Your task to perform on an android device: Empty the shopping cart on target.com. Search for logitech g502 on target.com, select the first entry, and add it to the cart. Image 0: 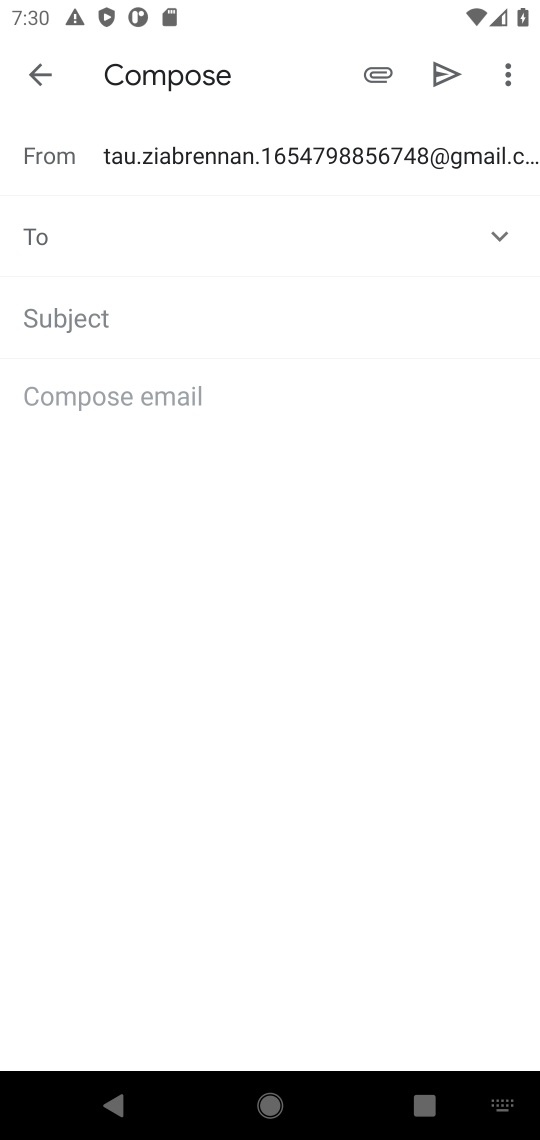
Step 0: press home button
Your task to perform on an android device: Empty the shopping cart on target.com. Search for logitech g502 on target.com, select the first entry, and add it to the cart. Image 1: 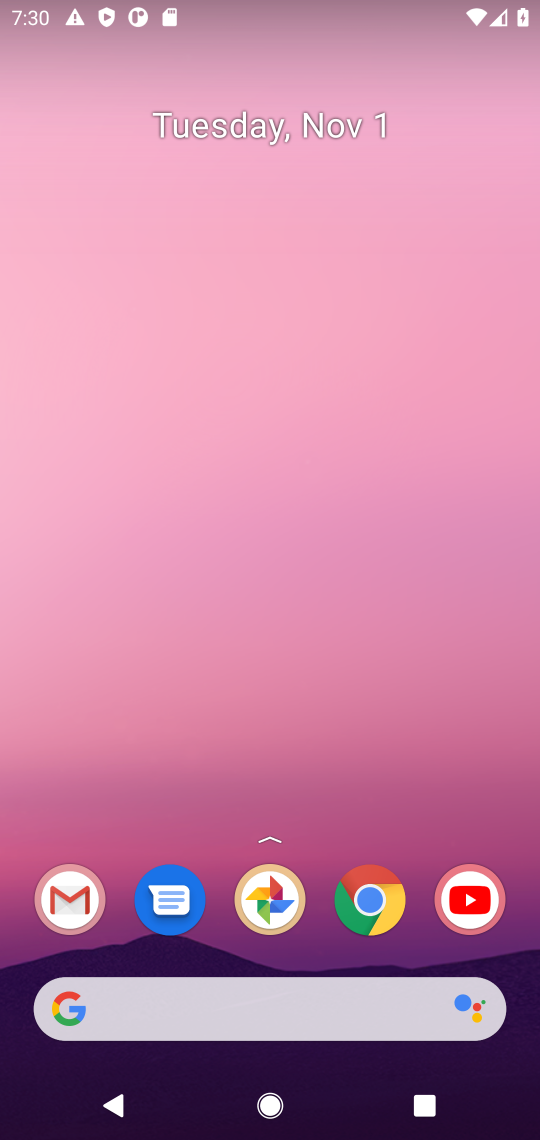
Step 1: drag from (319, 952) to (386, 218)
Your task to perform on an android device: Empty the shopping cart on target.com. Search for logitech g502 on target.com, select the first entry, and add it to the cart. Image 2: 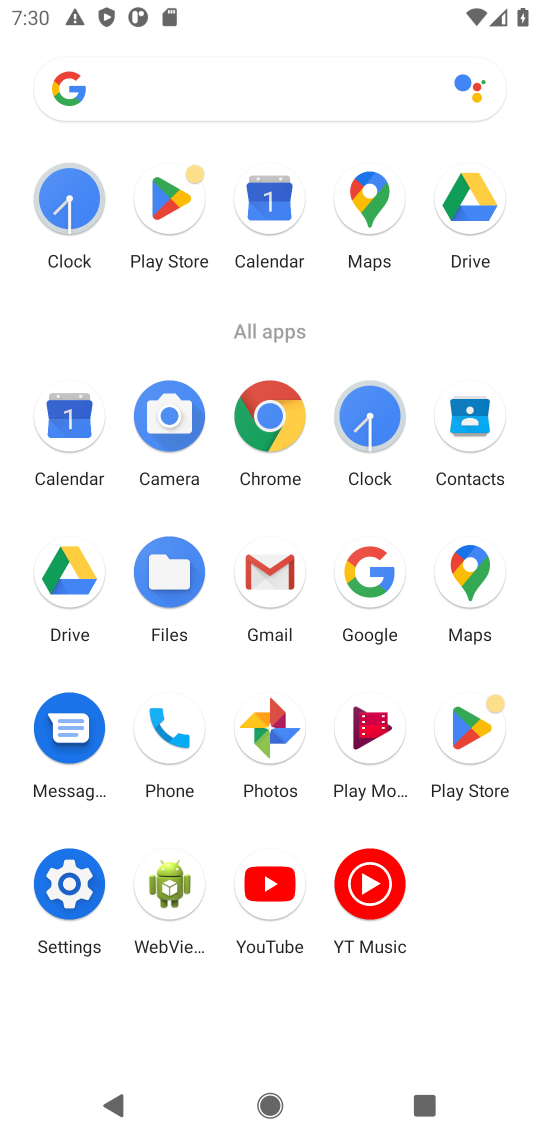
Step 2: click (266, 420)
Your task to perform on an android device: Empty the shopping cart on target.com. Search for logitech g502 on target.com, select the first entry, and add it to the cart. Image 3: 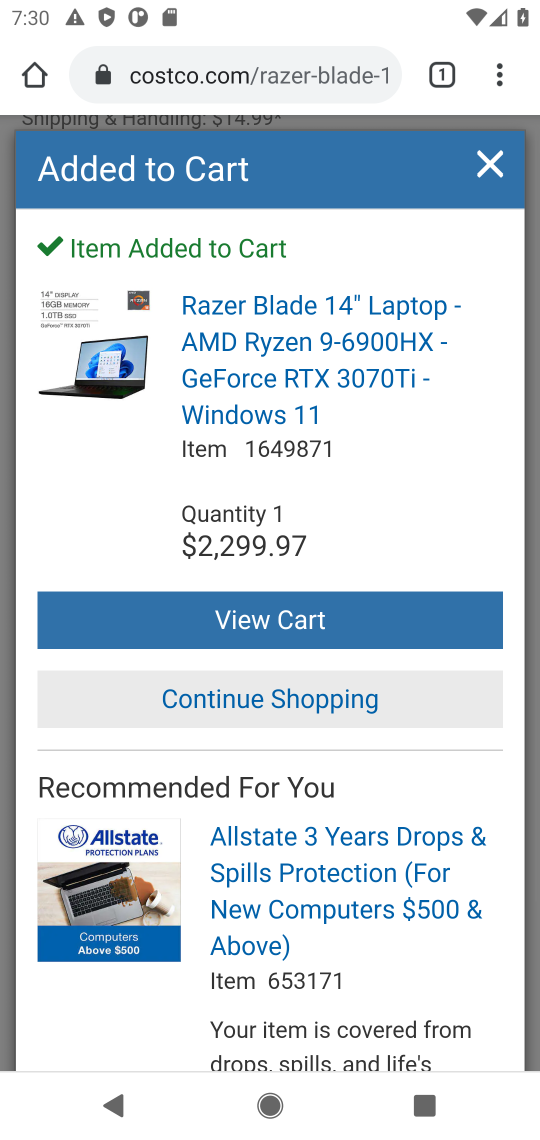
Step 3: click (279, 80)
Your task to perform on an android device: Empty the shopping cart on target.com. Search for logitech g502 on target.com, select the first entry, and add it to the cart. Image 4: 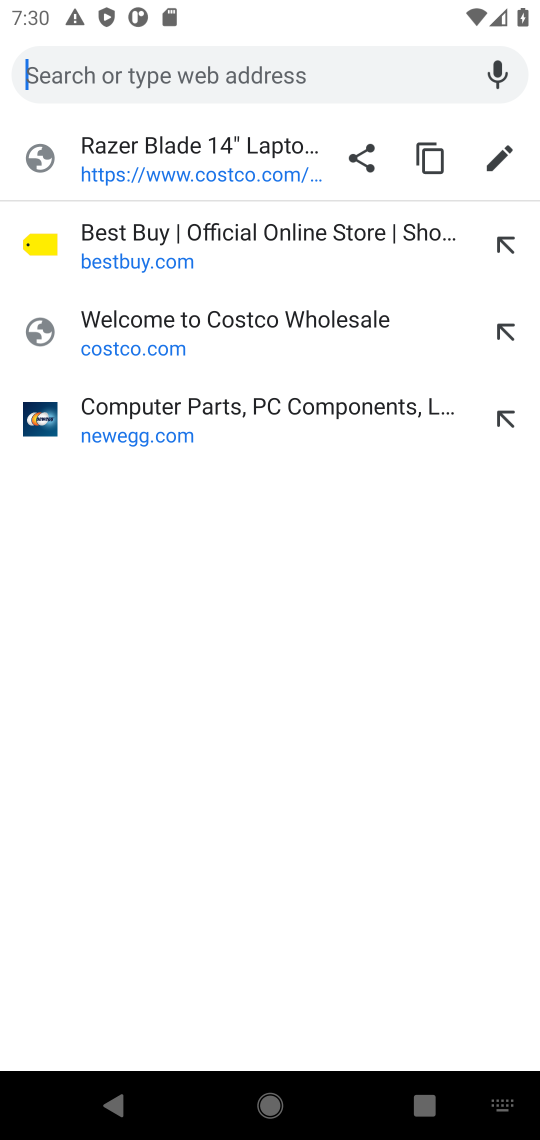
Step 4: type "target.com"
Your task to perform on an android device: Empty the shopping cart on target.com. Search for logitech g502 on target.com, select the first entry, and add it to the cart. Image 5: 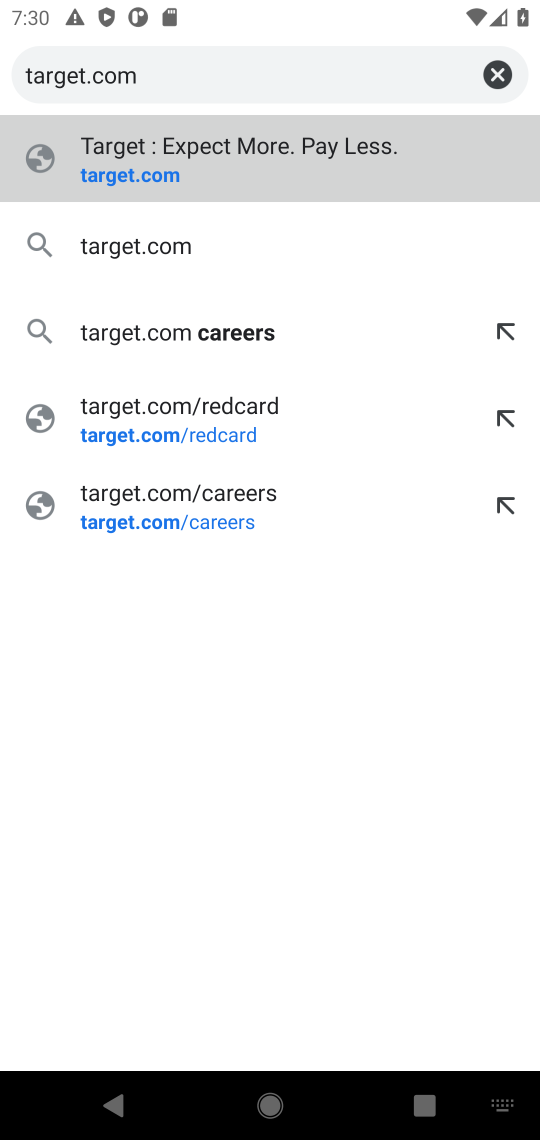
Step 5: press enter
Your task to perform on an android device: Empty the shopping cart on target.com. Search for logitech g502 on target.com, select the first entry, and add it to the cart. Image 6: 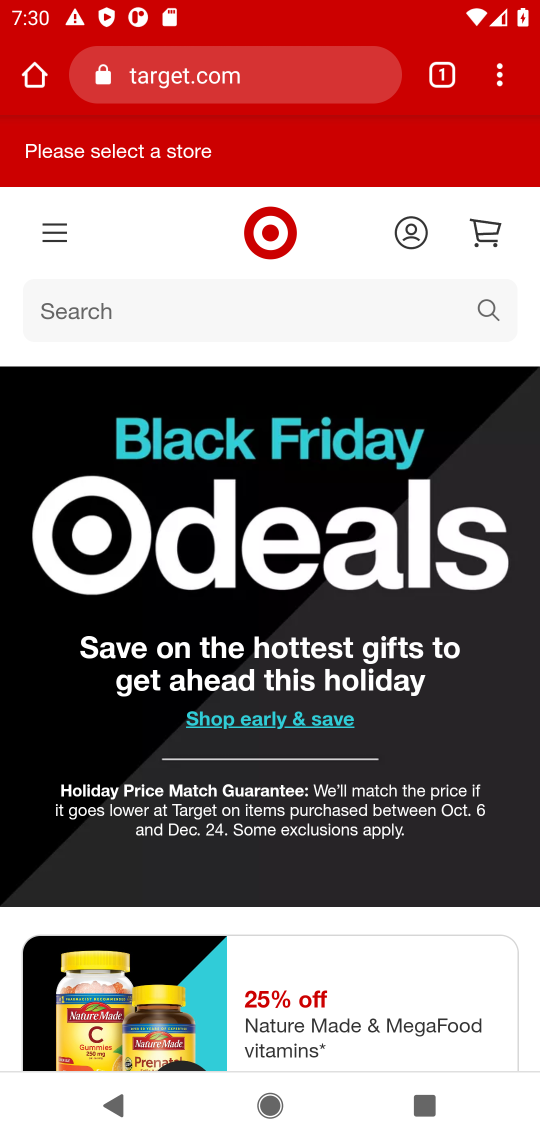
Step 6: click (263, 309)
Your task to perform on an android device: Empty the shopping cart on target.com. Search for logitech g502 on target.com, select the first entry, and add it to the cart. Image 7: 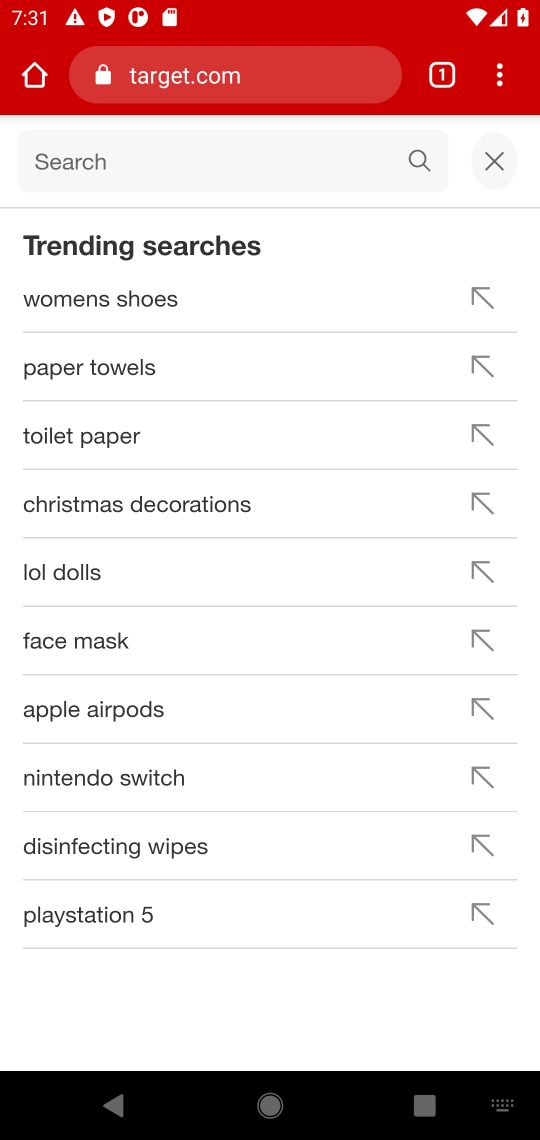
Step 7: click (488, 154)
Your task to perform on an android device: Empty the shopping cart on target.com. Search for logitech g502 on target.com, select the first entry, and add it to the cart. Image 8: 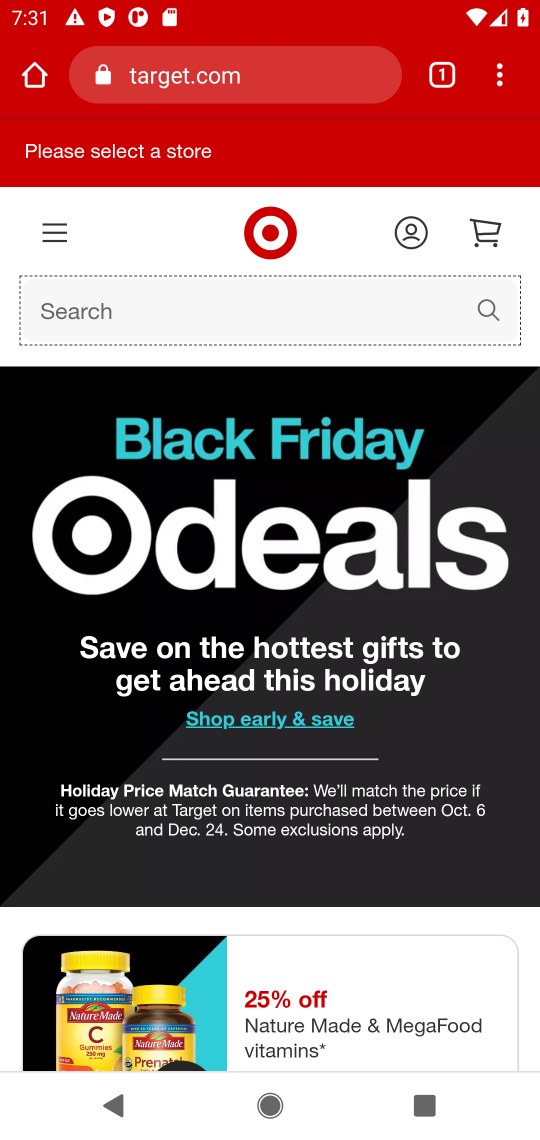
Step 8: click (500, 235)
Your task to perform on an android device: Empty the shopping cart on target.com. Search for logitech g502 on target.com, select the first entry, and add it to the cart. Image 9: 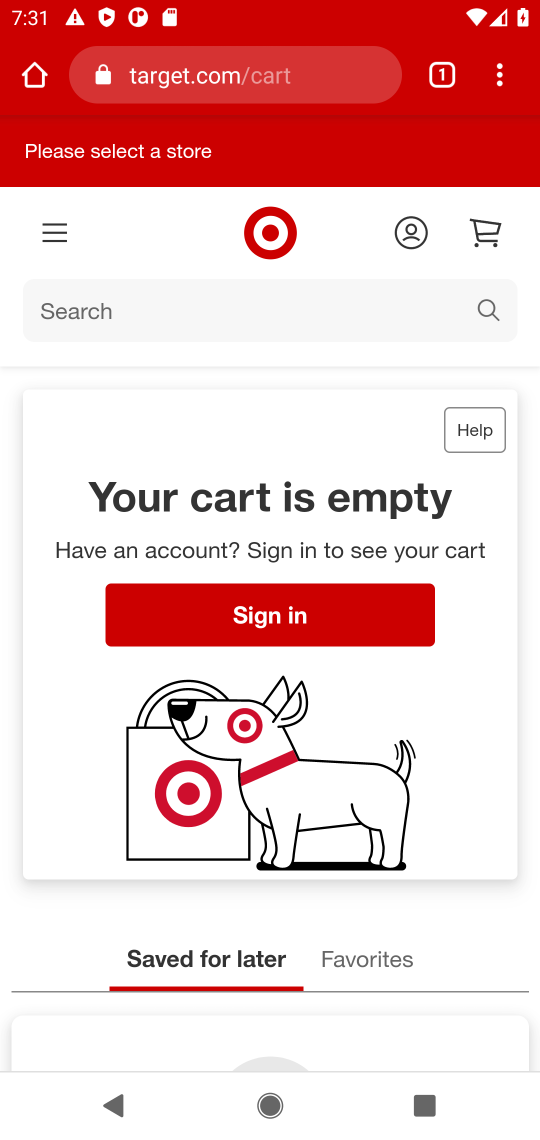
Step 9: click (378, 311)
Your task to perform on an android device: Empty the shopping cart on target.com. Search for logitech g502 on target.com, select the first entry, and add it to the cart. Image 10: 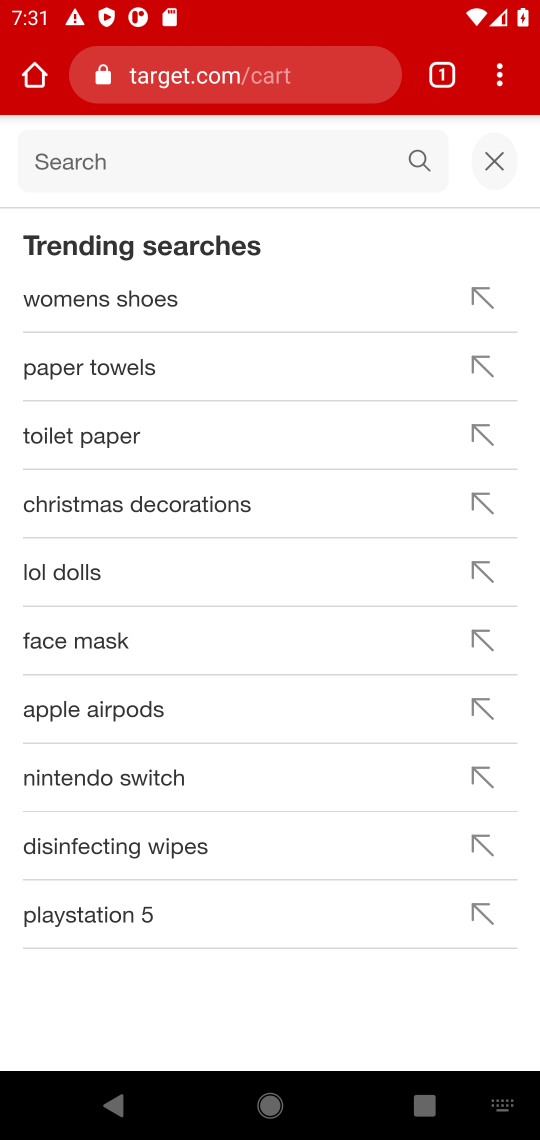
Step 10: type "logitech g502"
Your task to perform on an android device: Empty the shopping cart on target.com. Search for logitech g502 on target.com, select the first entry, and add it to the cart. Image 11: 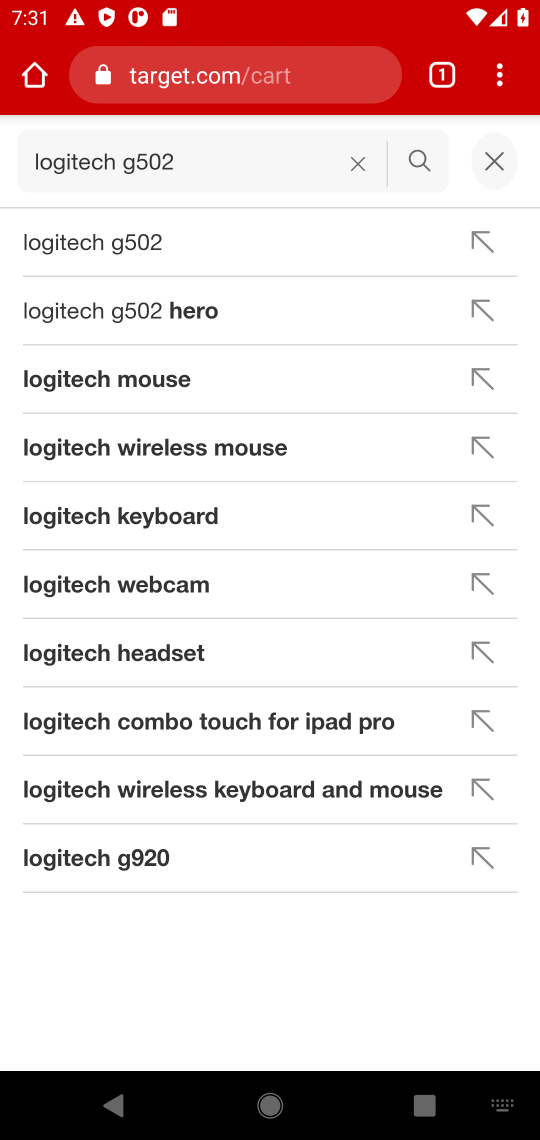
Step 11: press enter
Your task to perform on an android device: Empty the shopping cart on target.com. Search for logitech g502 on target.com, select the first entry, and add it to the cart. Image 12: 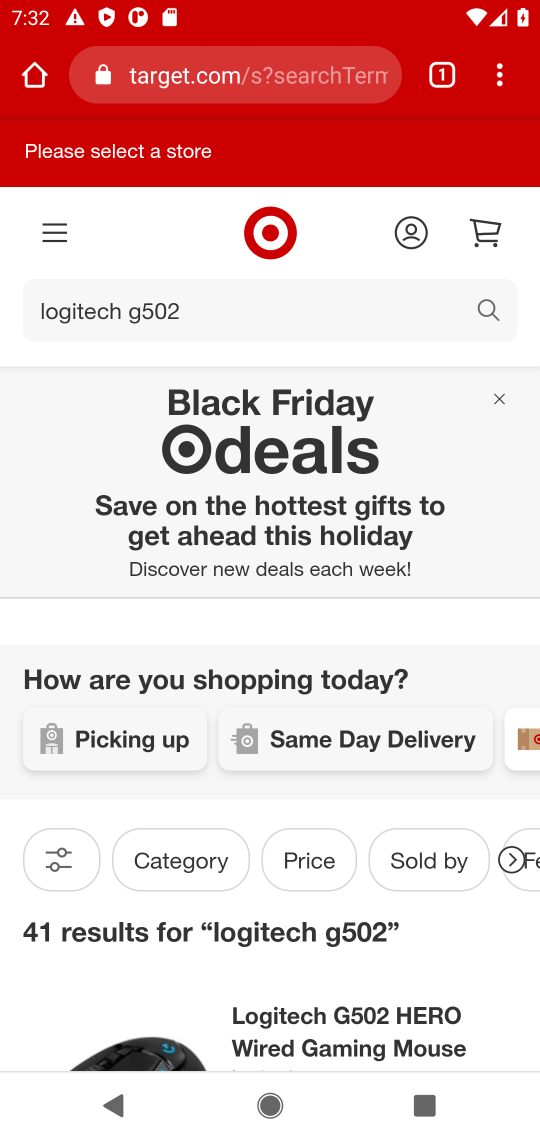
Step 12: drag from (339, 914) to (318, 509)
Your task to perform on an android device: Empty the shopping cart on target.com. Search for logitech g502 on target.com, select the first entry, and add it to the cart. Image 13: 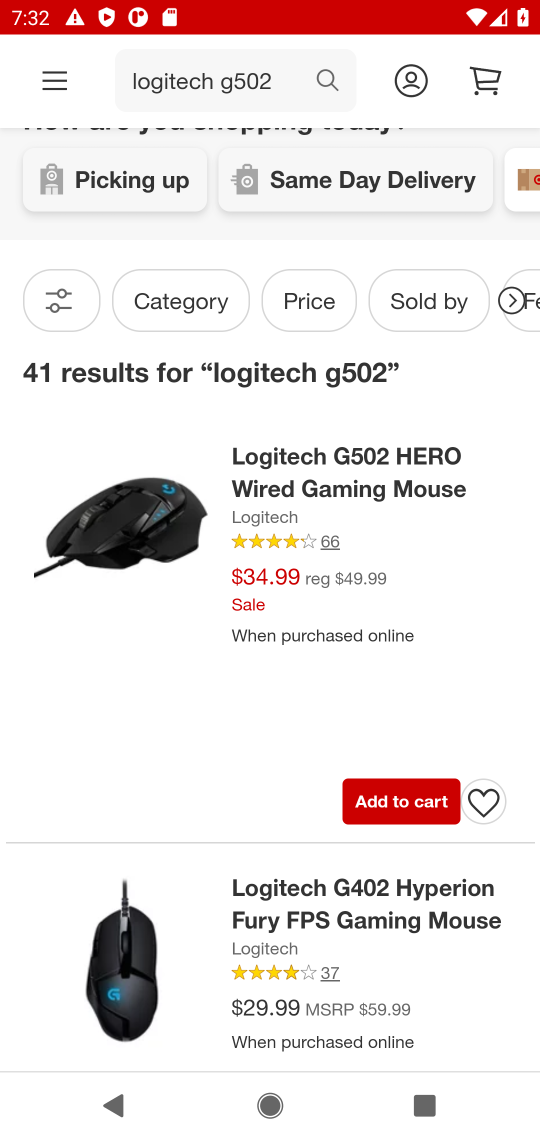
Step 13: click (291, 460)
Your task to perform on an android device: Empty the shopping cart on target.com. Search for logitech g502 on target.com, select the first entry, and add it to the cart. Image 14: 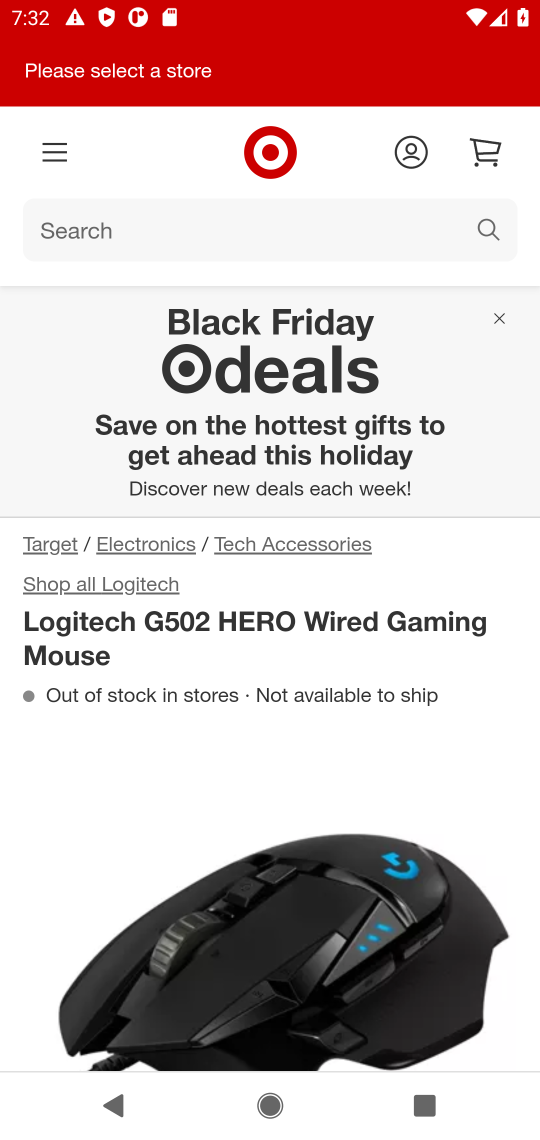
Step 14: drag from (343, 665) to (313, 83)
Your task to perform on an android device: Empty the shopping cart on target.com. Search for logitech g502 on target.com, select the first entry, and add it to the cart. Image 15: 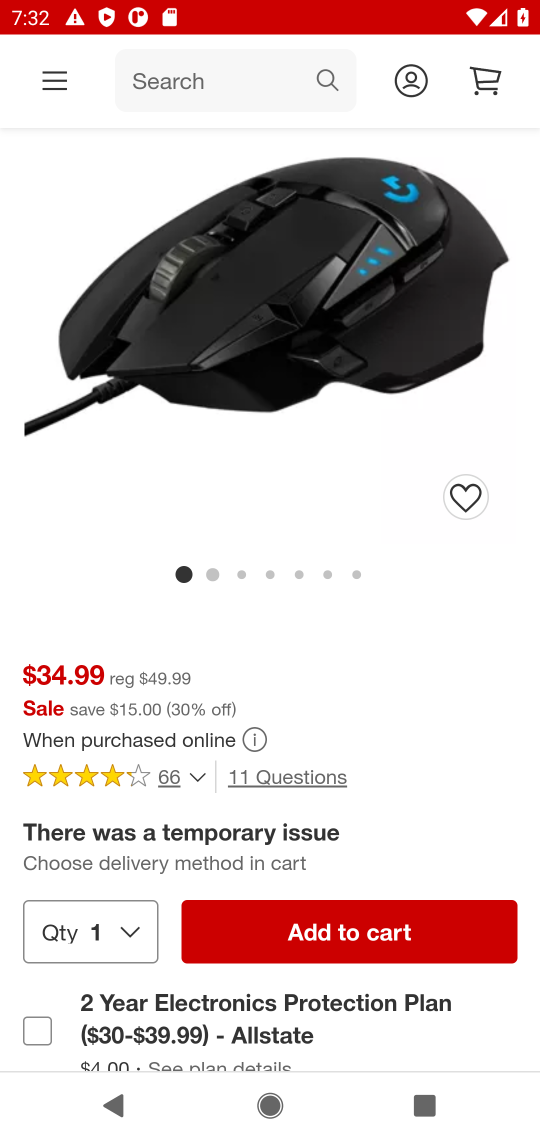
Step 15: click (385, 938)
Your task to perform on an android device: Empty the shopping cart on target.com. Search for logitech g502 on target.com, select the first entry, and add it to the cart. Image 16: 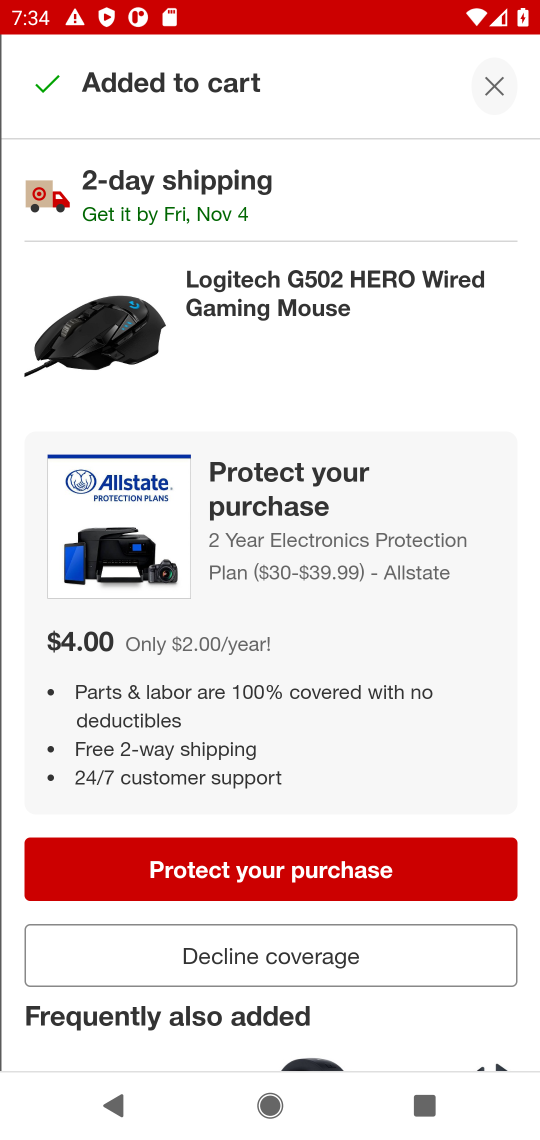
Step 16: task complete